Your task to perform on an android device: open chrome and create a bookmark for the current page Image 0: 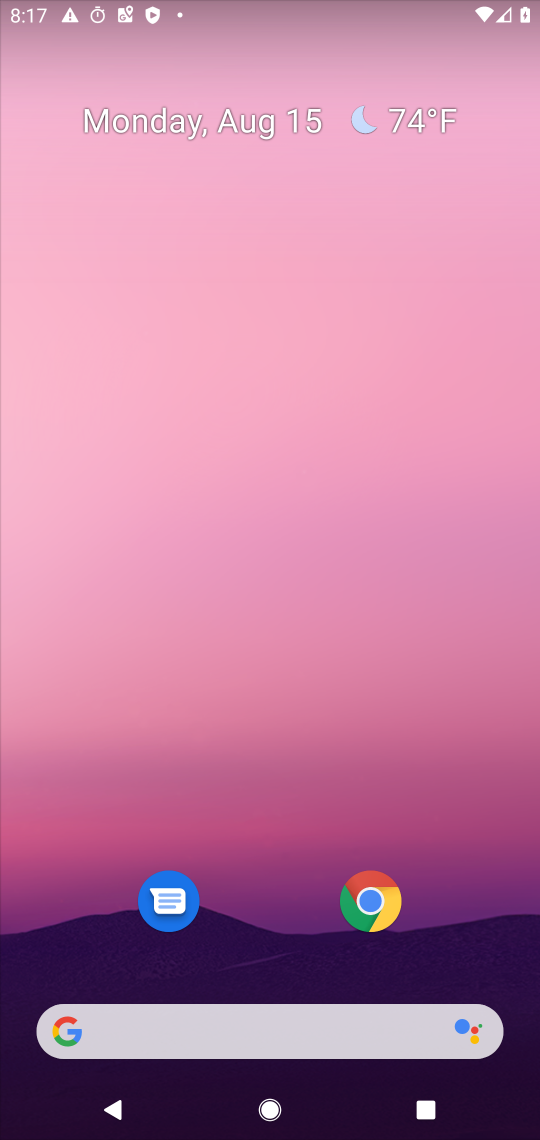
Step 0: click (360, 917)
Your task to perform on an android device: open chrome and create a bookmark for the current page Image 1: 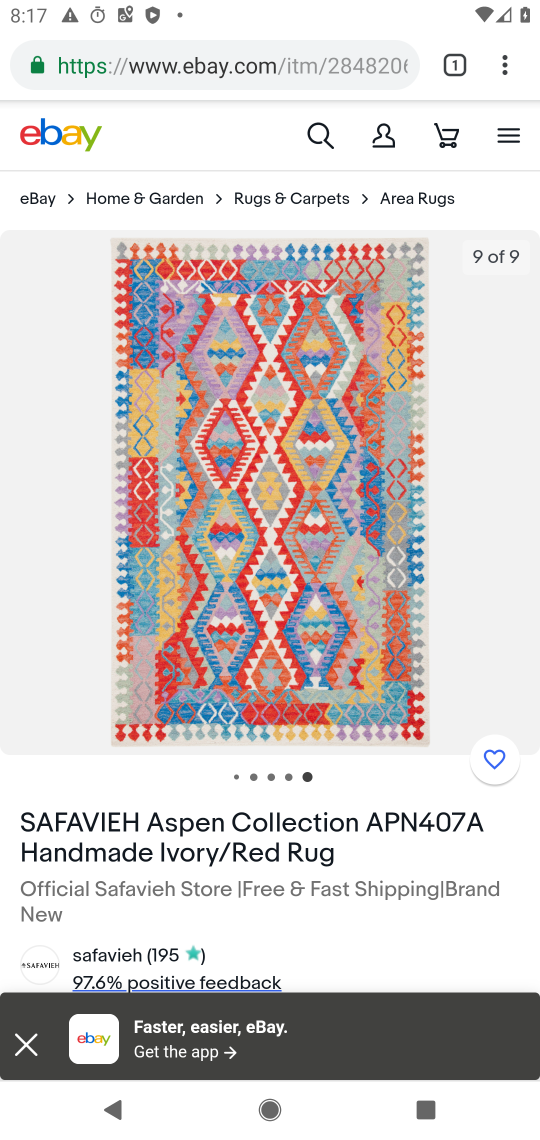
Step 1: click (499, 60)
Your task to perform on an android device: open chrome and create a bookmark for the current page Image 2: 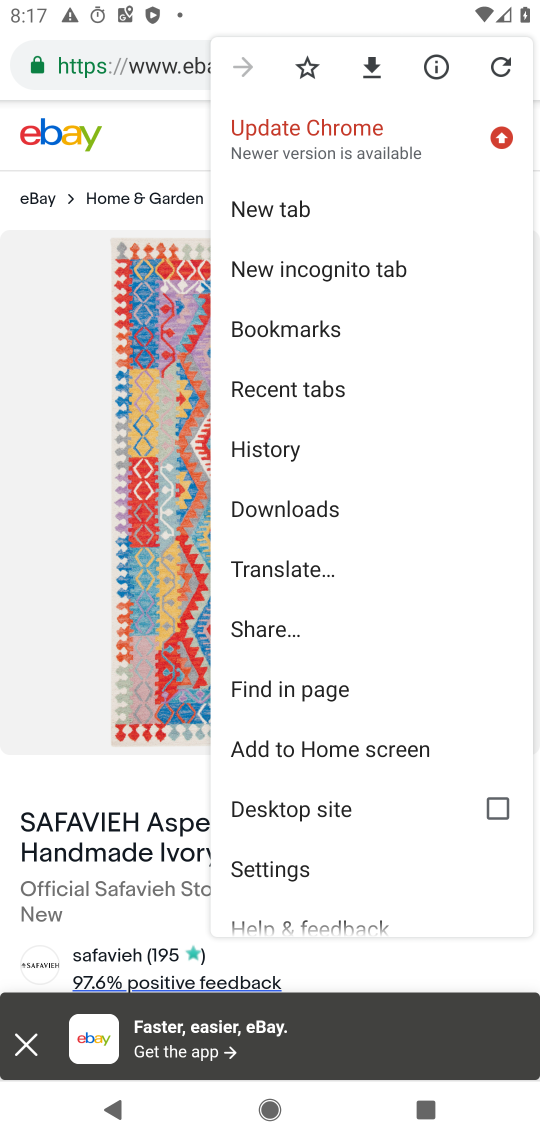
Step 2: click (307, 69)
Your task to perform on an android device: open chrome and create a bookmark for the current page Image 3: 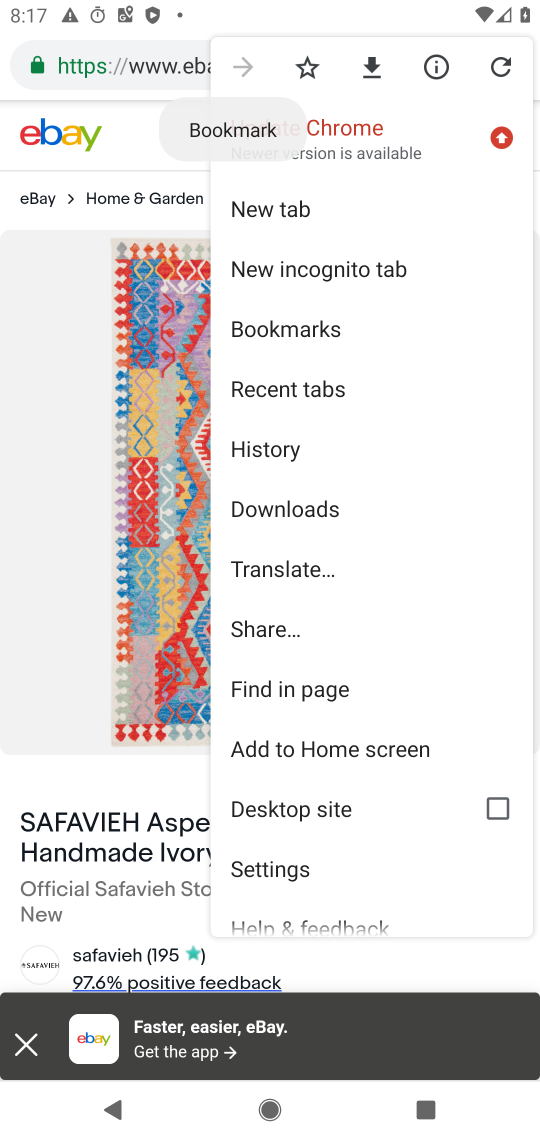
Step 3: click (318, 65)
Your task to perform on an android device: open chrome and create a bookmark for the current page Image 4: 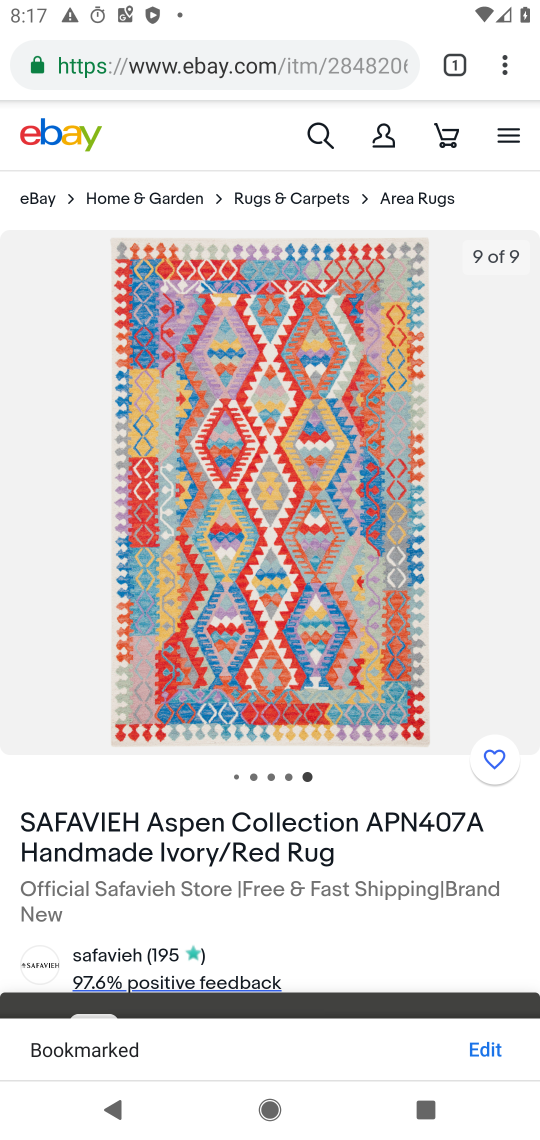
Step 4: task complete